Your task to perform on an android device: turn off notifications in google photos Image 0: 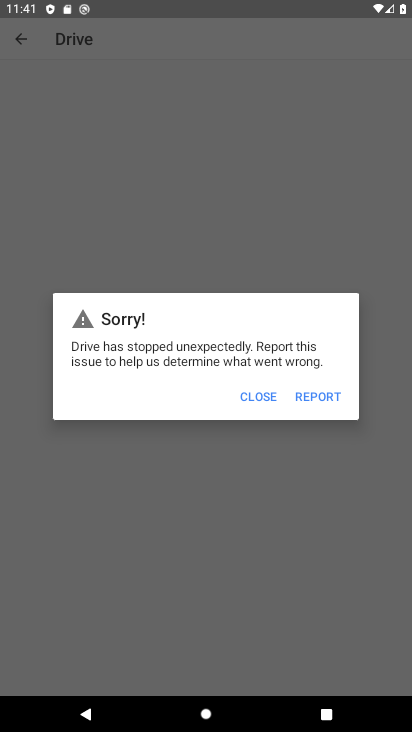
Step 0: press home button
Your task to perform on an android device: turn off notifications in google photos Image 1: 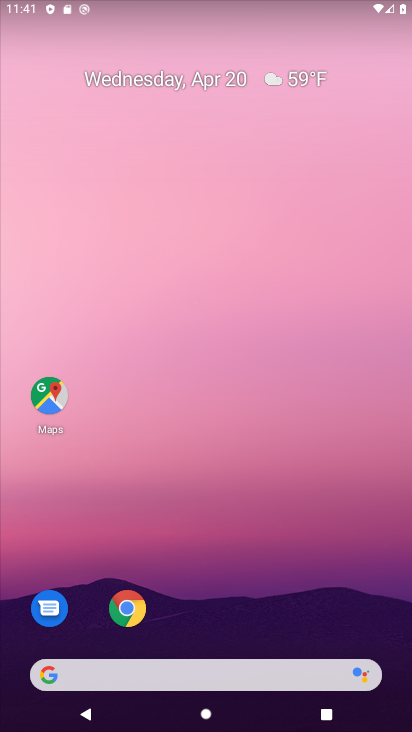
Step 1: drag from (232, 597) to (216, 62)
Your task to perform on an android device: turn off notifications in google photos Image 2: 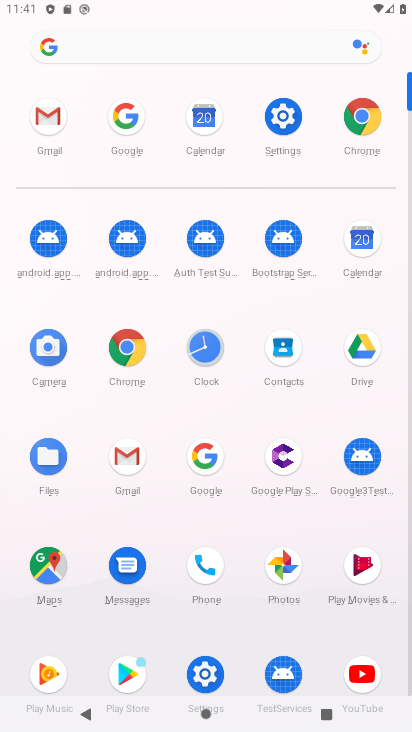
Step 2: click (282, 568)
Your task to perform on an android device: turn off notifications in google photos Image 3: 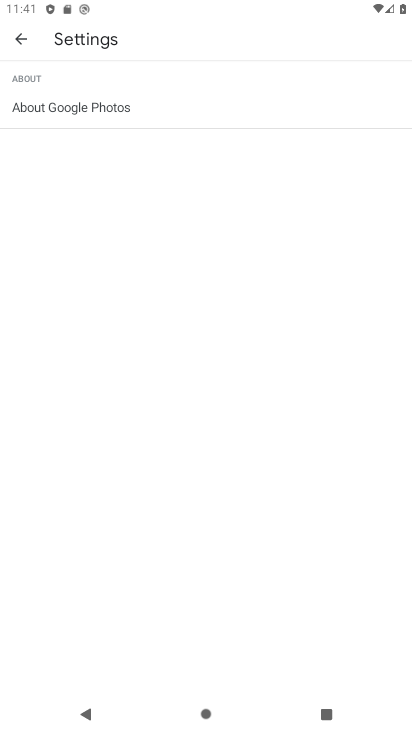
Step 3: press back button
Your task to perform on an android device: turn off notifications in google photos Image 4: 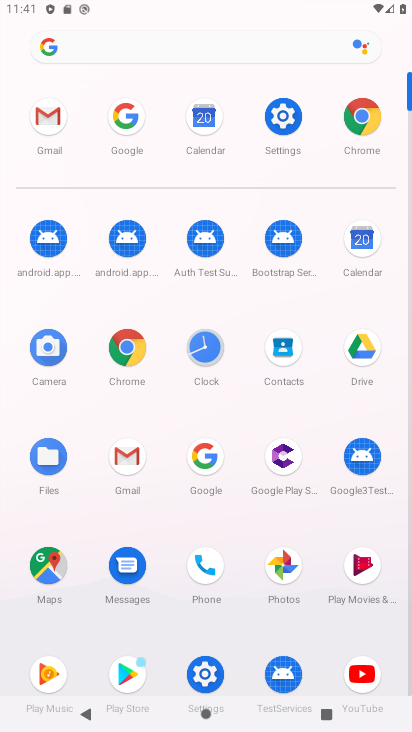
Step 4: click (290, 566)
Your task to perform on an android device: turn off notifications in google photos Image 5: 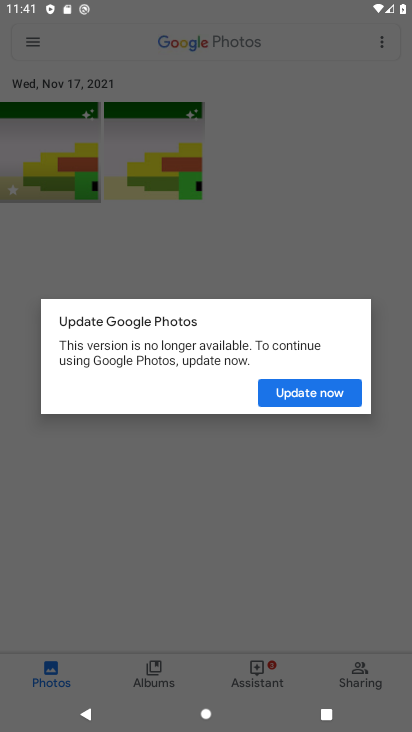
Step 5: click (282, 394)
Your task to perform on an android device: turn off notifications in google photos Image 6: 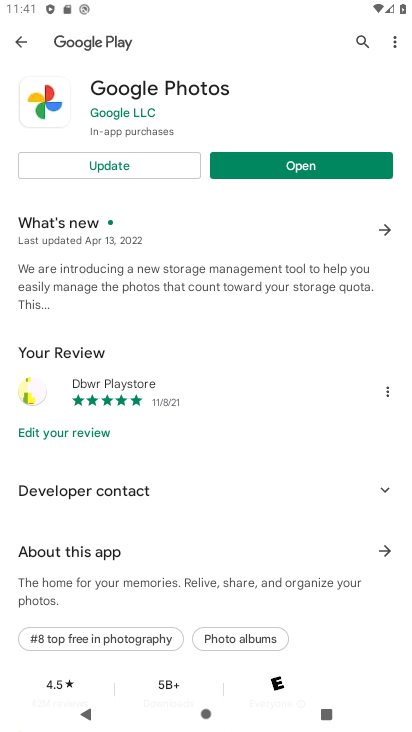
Step 6: click (273, 165)
Your task to perform on an android device: turn off notifications in google photos Image 7: 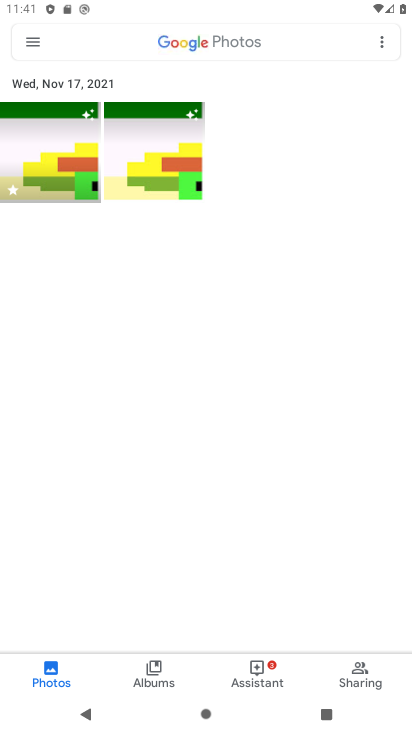
Step 7: click (31, 46)
Your task to perform on an android device: turn off notifications in google photos Image 8: 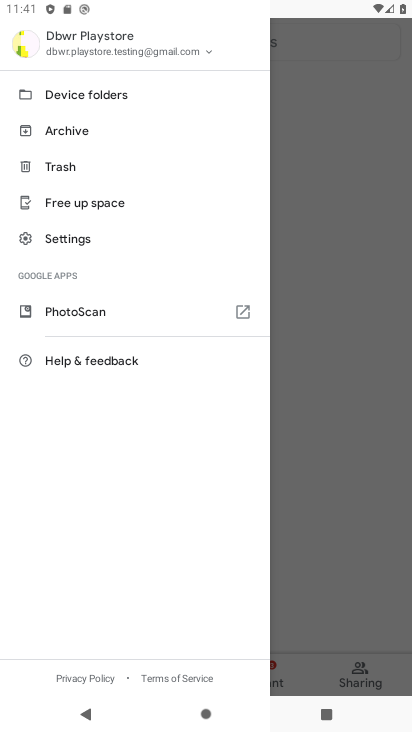
Step 8: click (82, 239)
Your task to perform on an android device: turn off notifications in google photos Image 9: 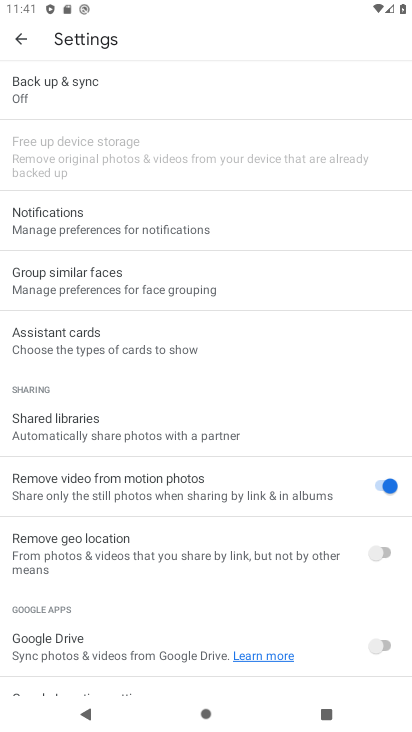
Step 9: click (106, 227)
Your task to perform on an android device: turn off notifications in google photos Image 10: 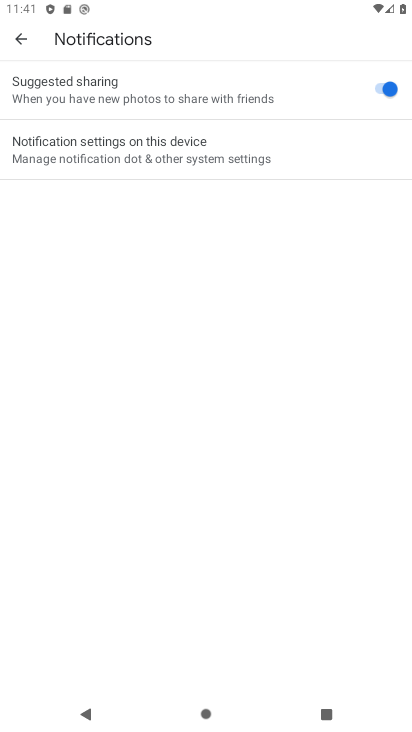
Step 10: click (167, 140)
Your task to perform on an android device: turn off notifications in google photos Image 11: 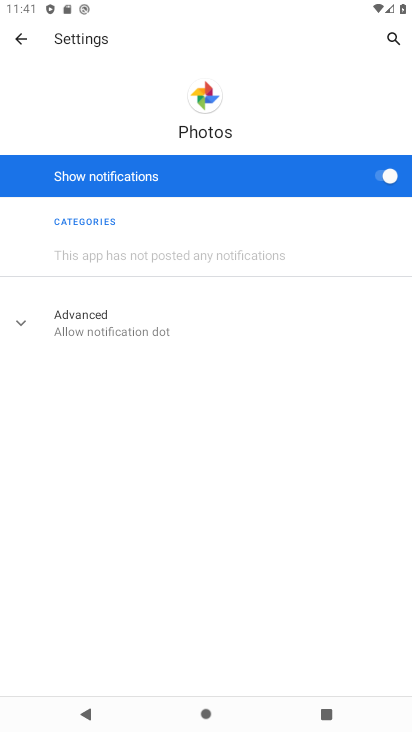
Step 11: click (391, 177)
Your task to perform on an android device: turn off notifications in google photos Image 12: 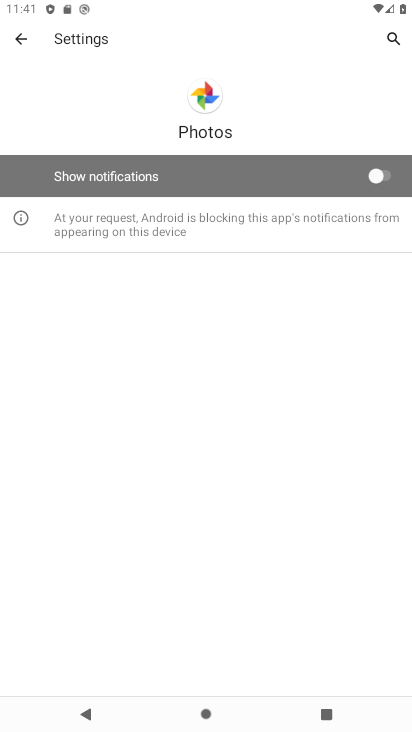
Step 12: task complete